Your task to perform on an android device: Open the calendar and show me this week's events? Image 0: 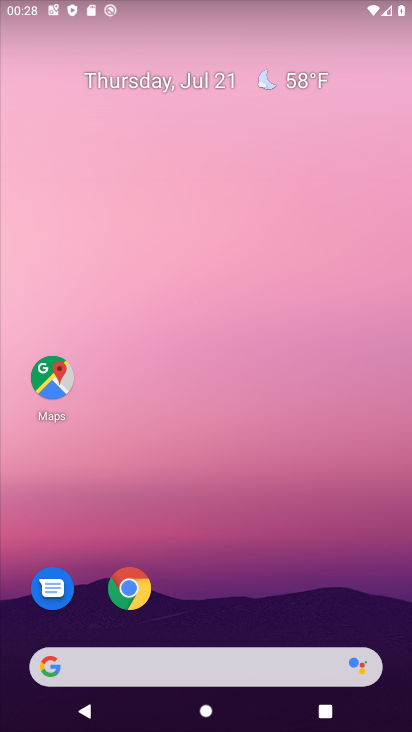
Step 0: drag from (185, 482) to (204, 8)
Your task to perform on an android device: Open the calendar and show me this week's events? Image 1: 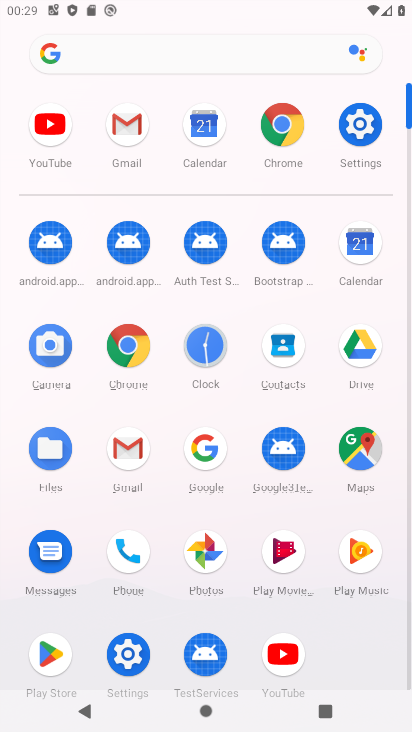
Step 1: click (367, 262)
Your task to perform on an android device: Open the calendar and show me this week's events? Image 2: 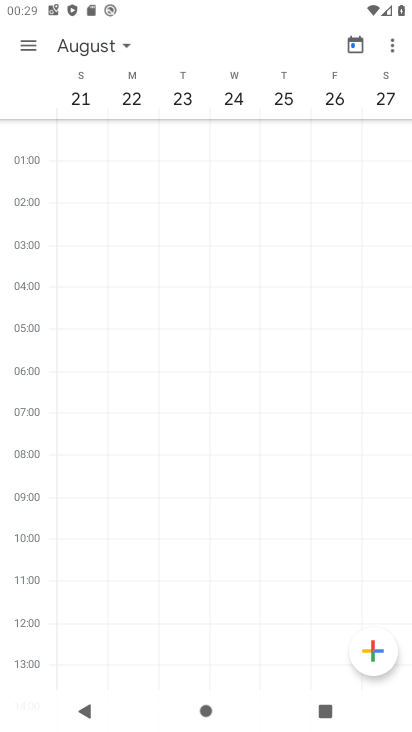
Step 2: click (87, 57)
Your task to perform on an android device: Open the calendar and show me this week's events? Image 3: 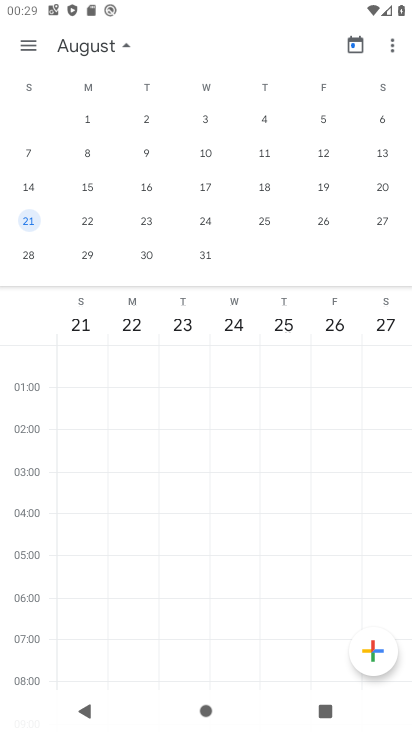
Step 3: drag from (111, 179) to (405, 248)
Your task to perform on an android device: Open the calendar and show me this week's events? Image 4: 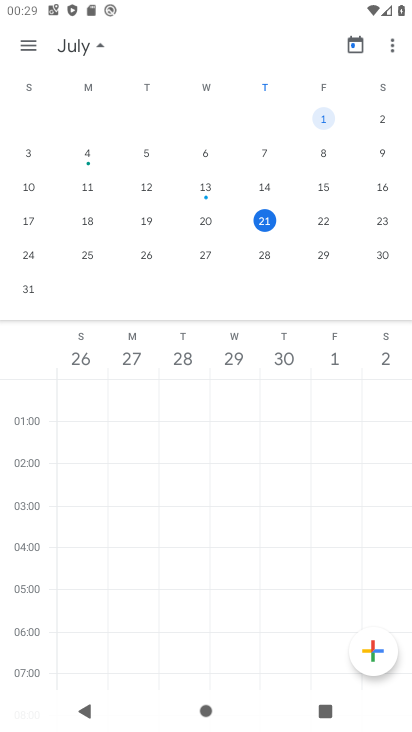
Step 4: click (265, 225)
Your task to perform on an android device: Open the calendar and show me this week's events? Image 5: 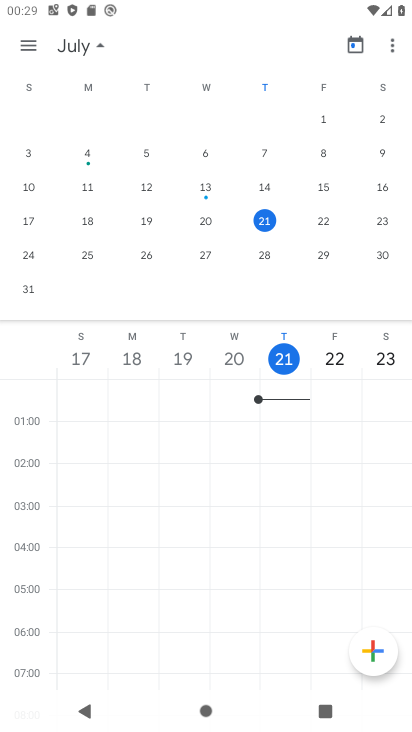
Step 5: click (28, 42)
Your task to perform on an android device: Open the calendar and show me this week's events? Image 6: 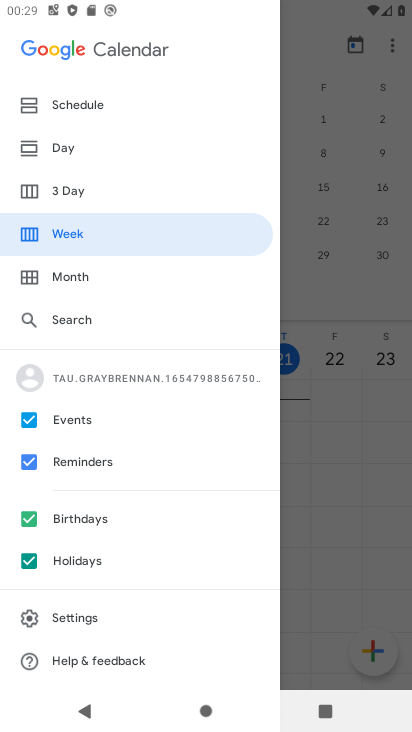
Step 6: click (73, 456)
Your task to perform on an android device: Open the calendar and show me this week's events? Image 7: 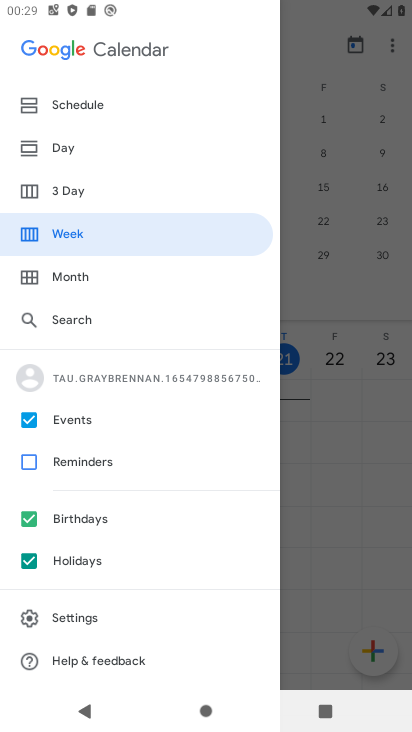
Step 7: click (74, 519)
Your task to perform on an android device: Open the calendar and show me this week's events? Image 8: 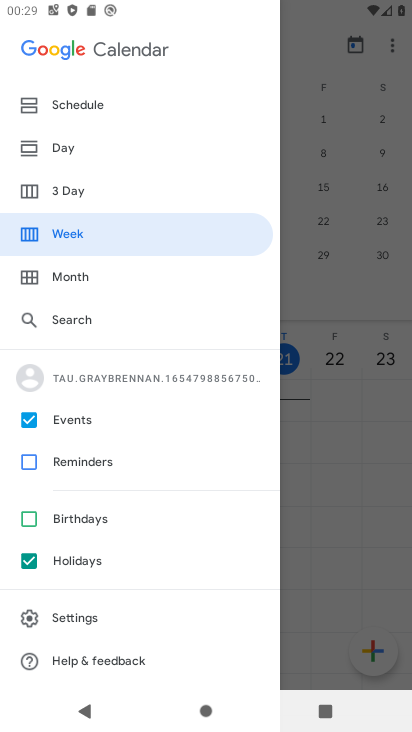
Step 8: click (75, 559)
Your task to perform on an android device: Open the calendar and show me this week's events? Image 9: 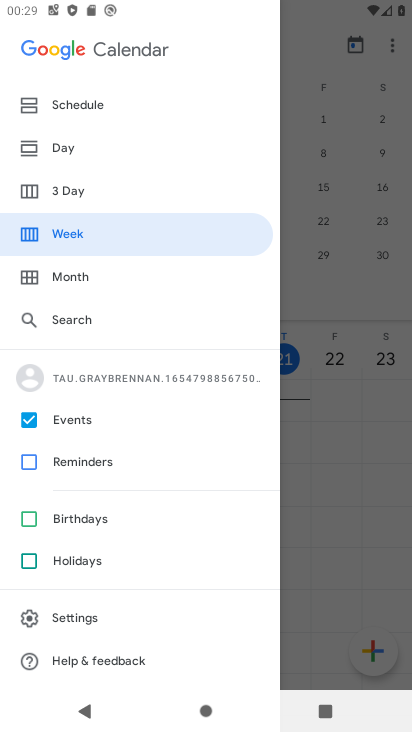
Step 9: click (95, 235)
Your task to perform on an android device: Open the calendar and show me this week's events? Image 10: 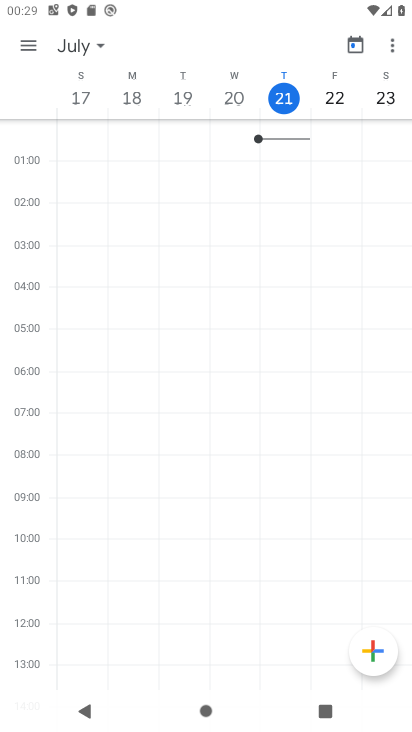
Step 10: task complete